Your task to perform on an android device: Go to Android settings Image 0: 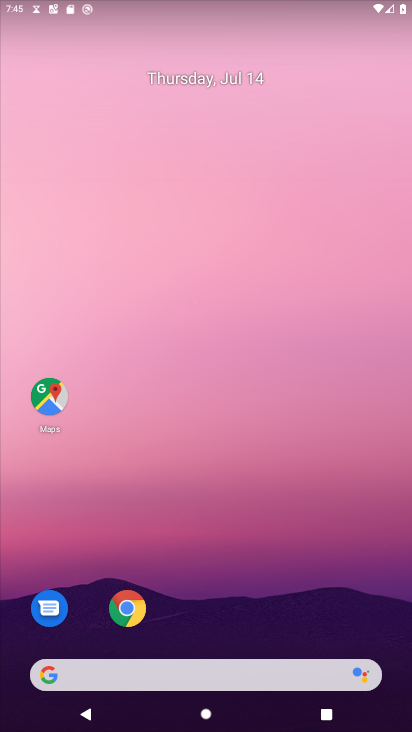
Step 0: drag from (257, 593) to (165, 4)
Your task to perform on an android device: Go to Android settings Image 1: 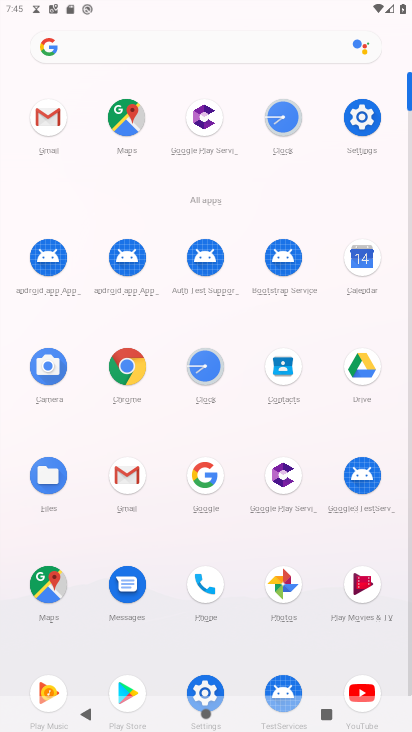
Step 1: click (355, 126)
Your task to perform on an android device: Go to Android settings Image 2: 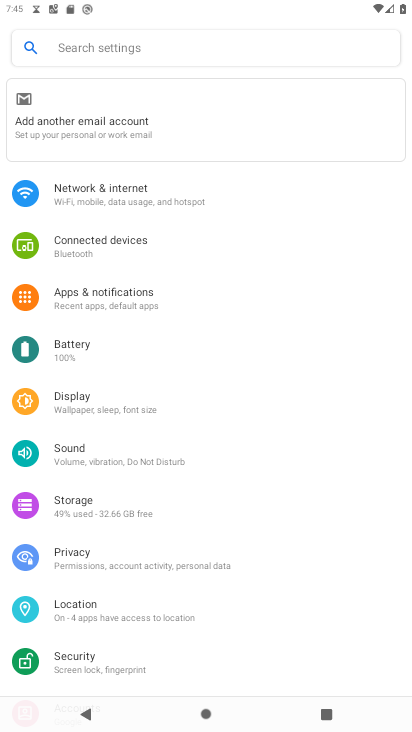
Step 2: task complete